Your task to perform on an android device: turn off wifi Image 0: 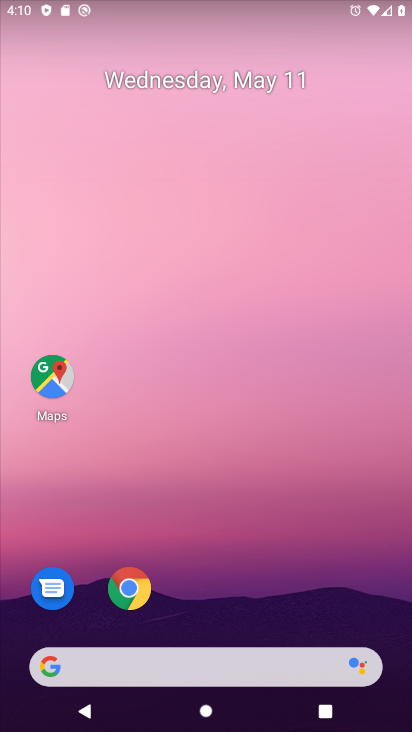
Step 0: drag from (264, 583) to (240, 118)
Your task to perform on an android device: turn off wifi Image 1: 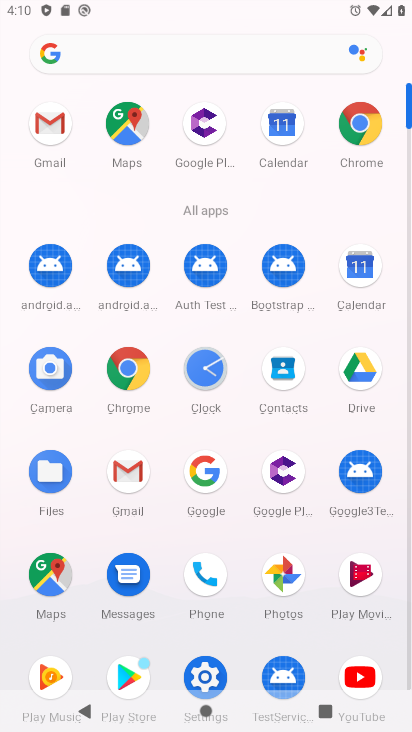
Step 1: drag from (401, 527) to (355, 100)
Your task to perform on an android device: turn off wifi Image 2: 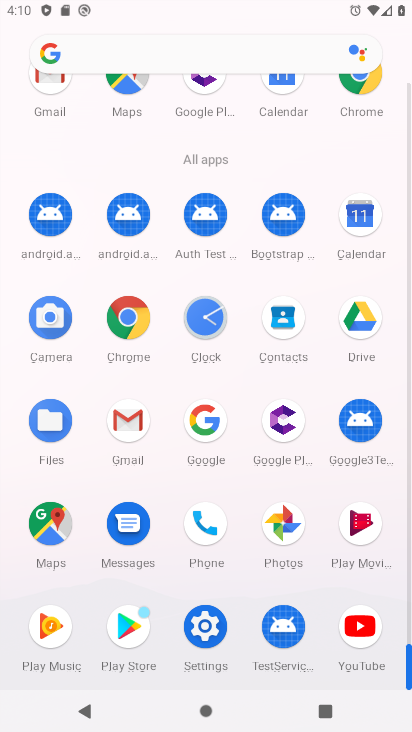
Step 2: click (197, 627)
Your task to perform on an android device: turn off wifi Image 3: 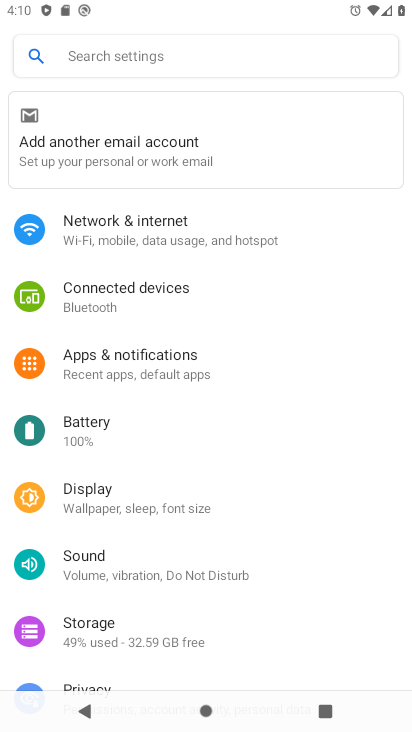
Step 3: drag from (155, 180) to (212, 571)
Your task to perform on an android device: turn off wifi Image 4: 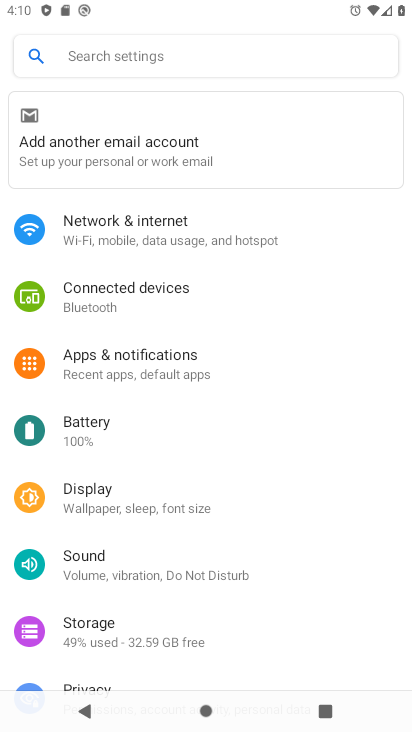
Step 4: click (119, 240)
Your task to perform on an android device: turn off wifi Image 5: 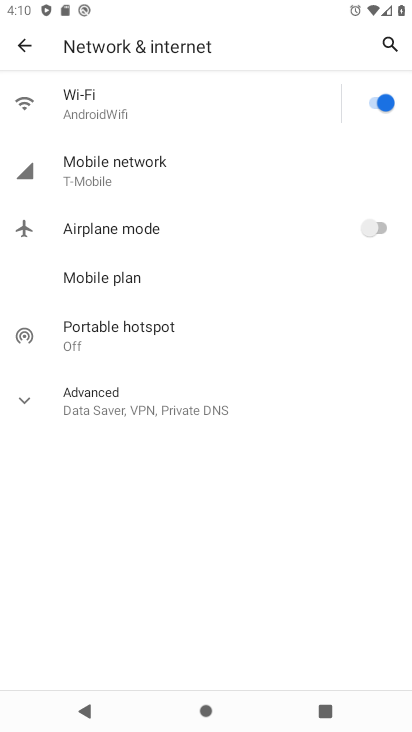
Step 5: click (122, 126)
Your task to perform on an android device: turn off wifi Image 6: 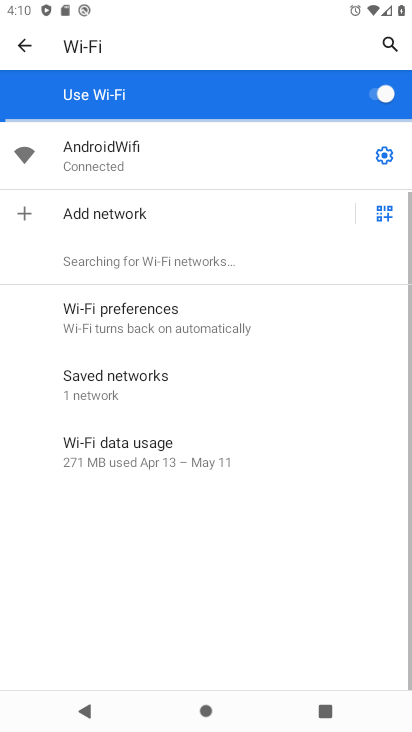
Step 6: click (376, 94)
Your task to perform on an android device: turn off wifi Image 7: 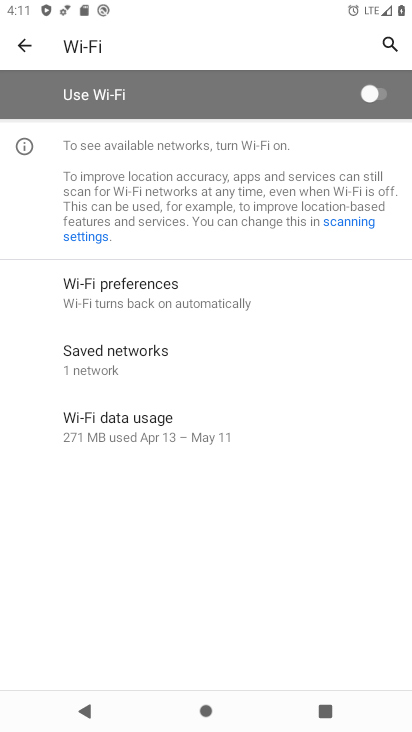
Step 7: task complete